Your task to perform on an android device: Search for seafood restaurants on Google Maps Image 0: 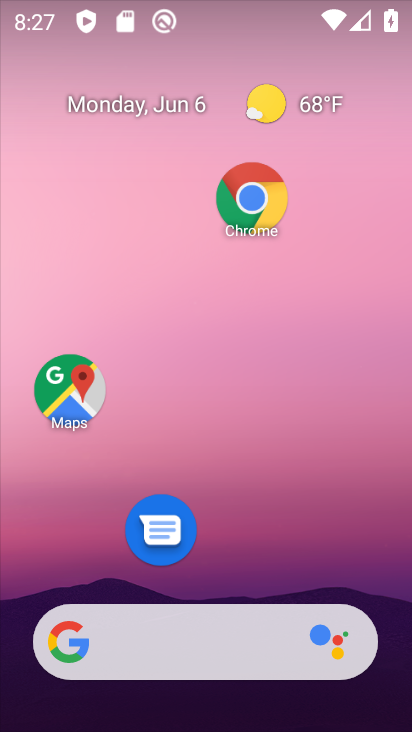
Step 0: click (92, 398)
Your task to perform on an android device: Search for seafood restaurants on Google Maps Image 1: 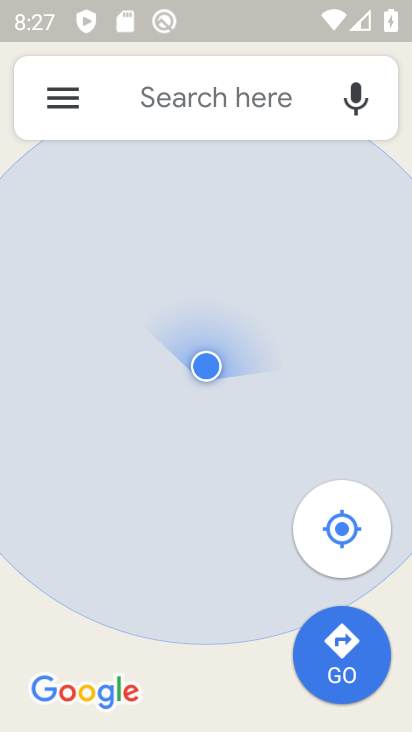
Step 1: click (182, 93)
Your task to perform on an android device: Search for seafood restaurants on Google Maps Image 2: 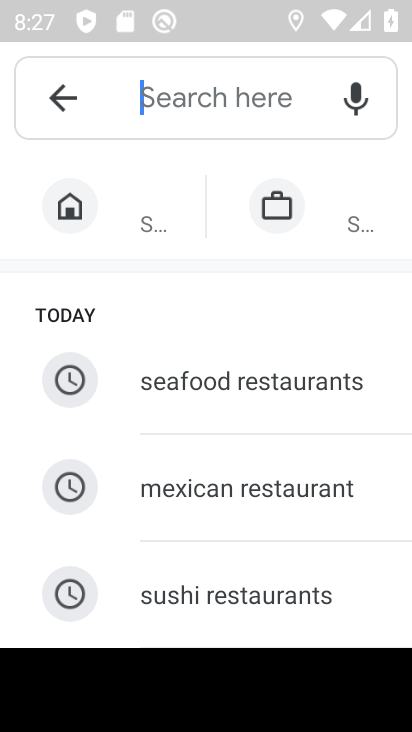
Step 2: click (264, 391)
Your task to perform on an android device: Search for seafood restaurants on Google Maps Image 3: 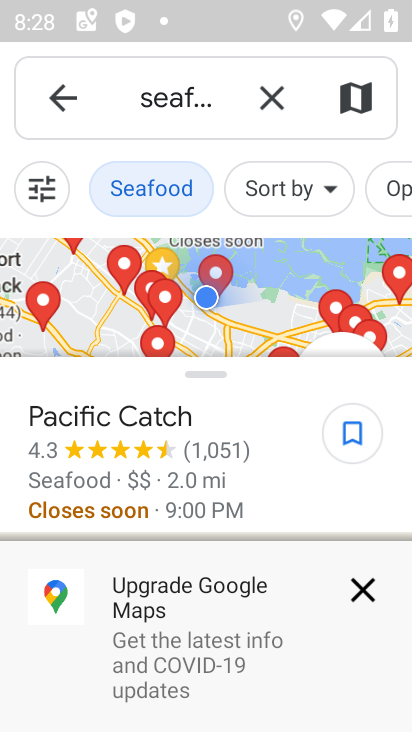
Step 3: task complete